Your task to perform on an android device: check out phone information Image 0: 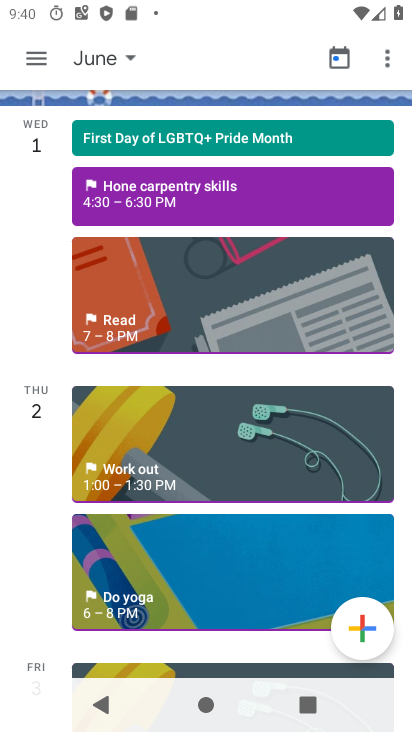
Step 0: press home button
Your task to perform on an android device: check out phone information Image 1: 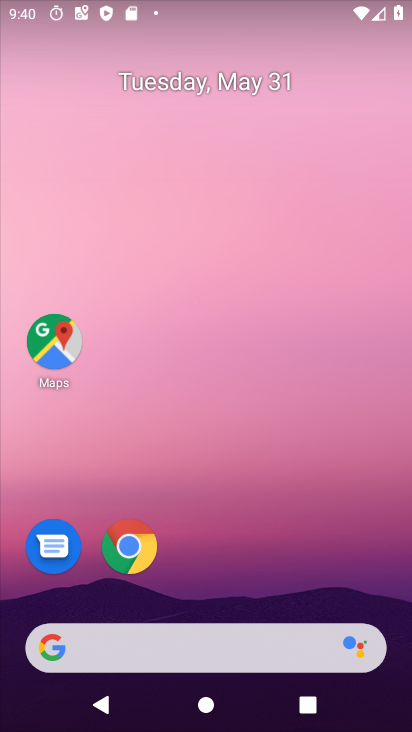
Step 1: drag from (255, 590) to (247, 226)
Your task to perform on an android device: check out phone information Image 2: 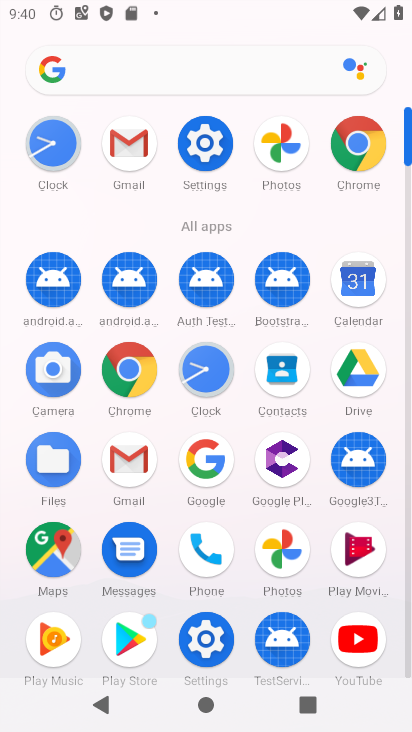
Step 2: click (203, 153)
Your task to perform on an android device: check out phone information Image 3: 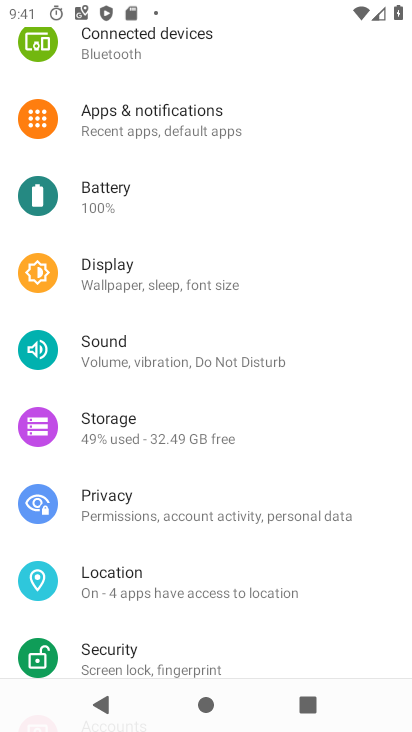
Step 3: drag from (278, 571) to (277, 202)
Your task to perform on an android device: check out phone information Image 4: 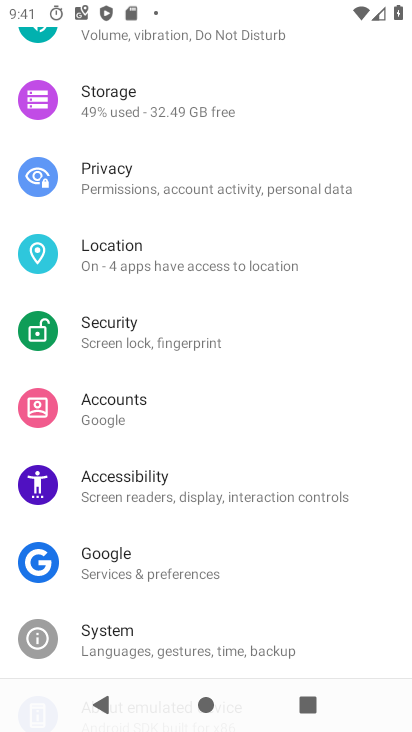
Step 4: drag from (186, 622) to (182, 229)
Your task to perform on an android device: check out phone information Image 5: 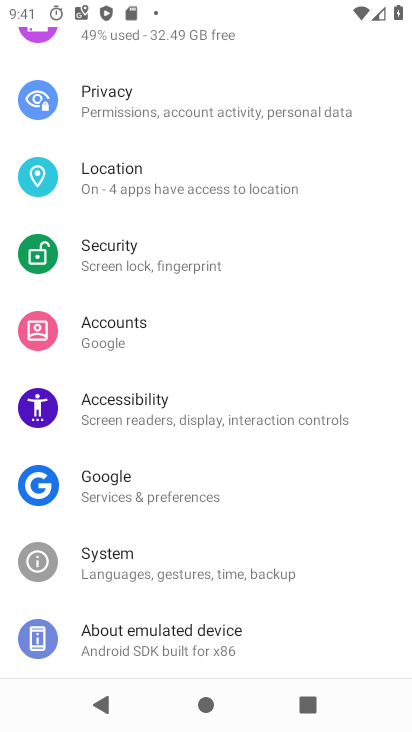
Step 5: click (165, 632)
Your task to perform on an android device: check out phone information Image 6: 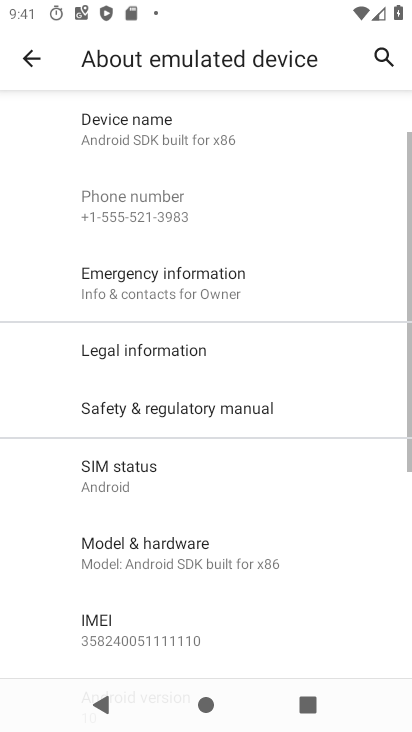
Step 6: task complete